Your task to perform on an android device: Do I have any events tomorrow? Image 0: 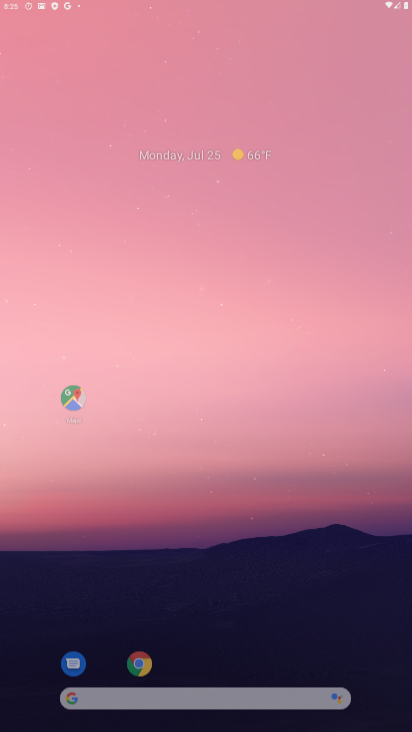
Step 0: drag from (381, 373) to (337, 35)
Your task to perform on an android device: Do I have any events tomorrow? Image 1: 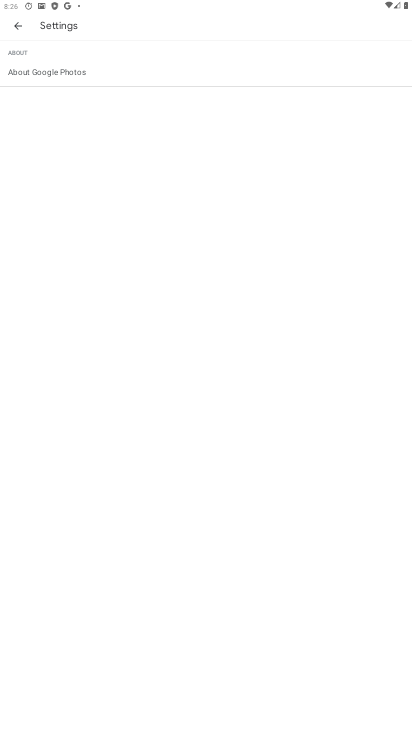
Step 1: drag from (146, 627) to (200, 345)
Your task to perform on an android device: Do I have any events tomorrow? Image 2: 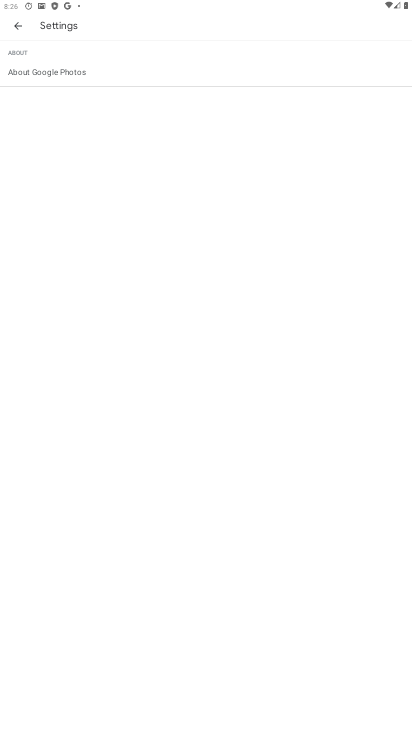
Step 2: drag from (287, 643) to (297, 423)
Your task to perform on an android device: Do I have any events tomorrow? Image 3: 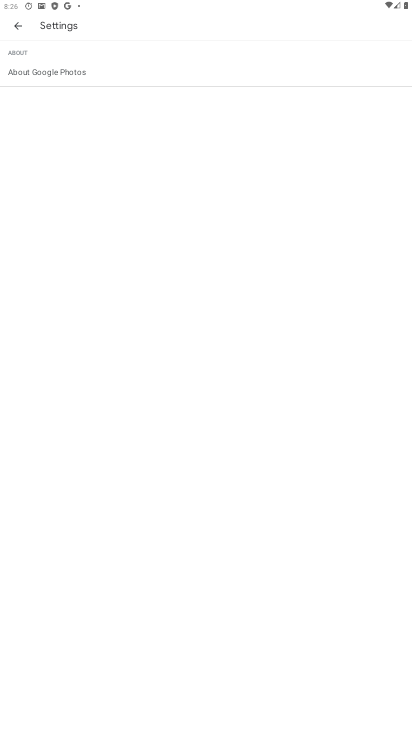
Step 3: drag from (240, 532) to (268, 381)
Your task to perform on an android device: Do I have any events tomorrow? Image 4: 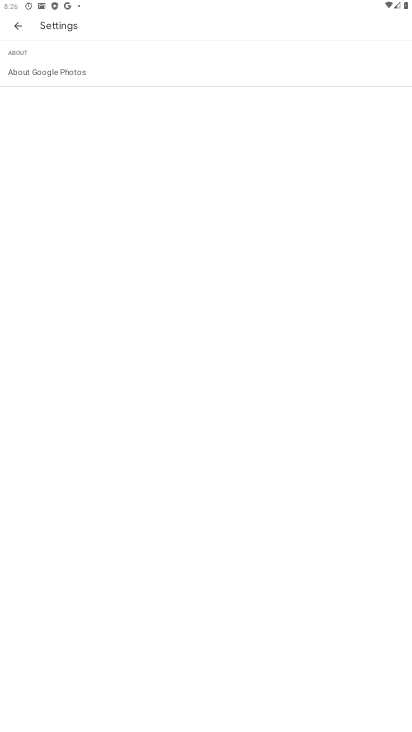
Step 4: drag from (155, 706) to (246, 391)
Your task to perform on an android device: Do I have any events tomorrow? Image 5: 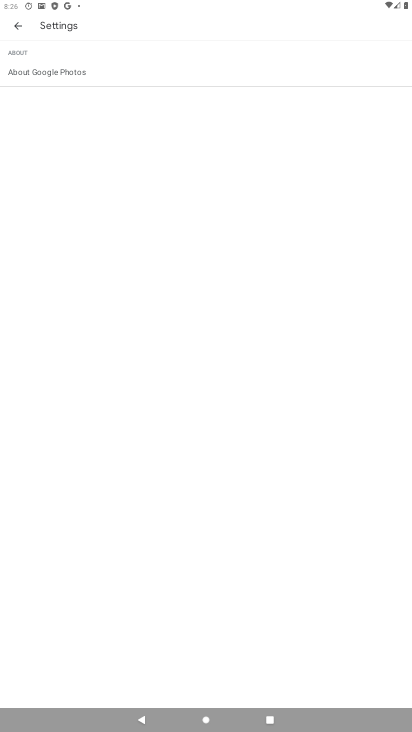
Step 5: drag from (286, 640) to (292, 340)
Your task to perform on an android device: Do I have any events tomorrow? Image 6: 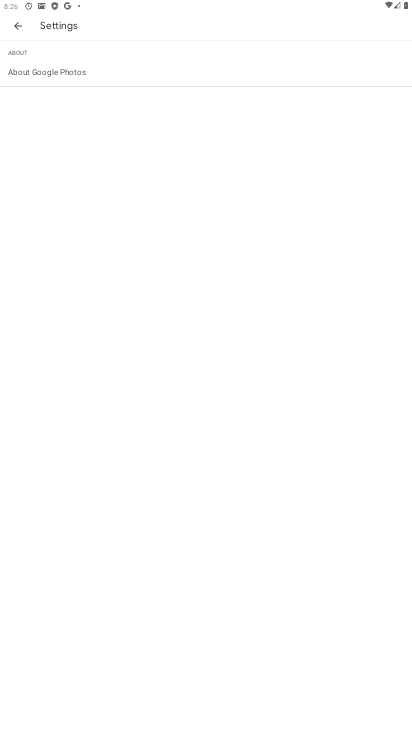
Step 6: drag from (212, 591) to (249, 438)
Your task to perform on an android device: Do I have any events tomorrow? Image 7: 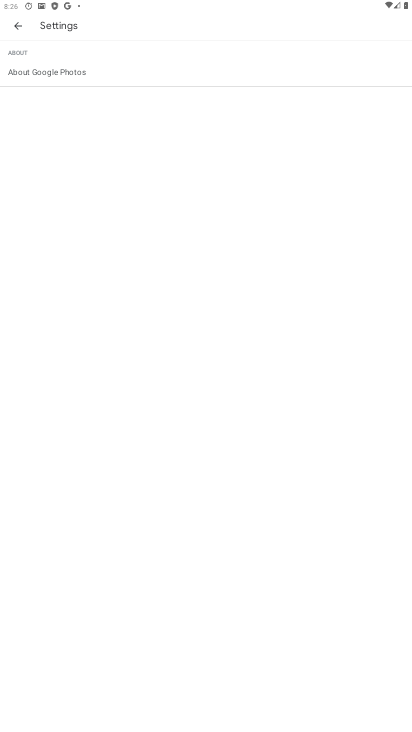
Step 7: drag from (275, 562) to (352, 723)
Your task to perform on an android device: Do I have any events tomorrow? Image 8: 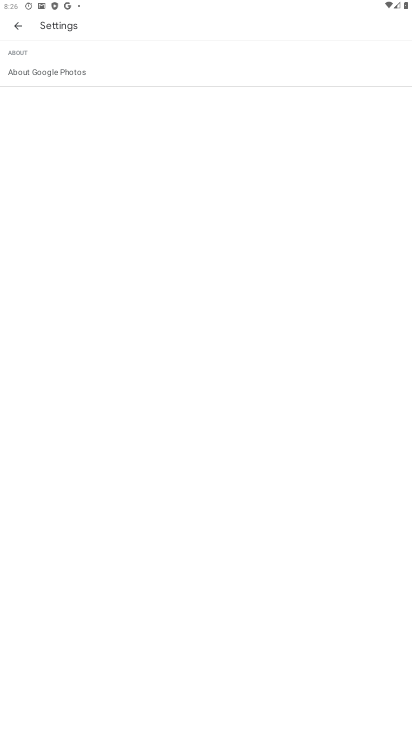
Step 8: drag from (258, 502) to (258, 418)
Your task to perform on an android device: Do I have any events tomorrow? Image 9: 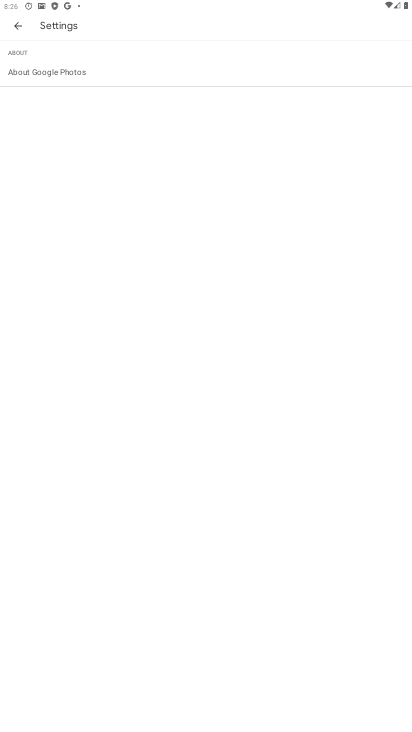
Step 9: click (188, 447)
Your task to perform on an android device: Do I have any events tomorrow? Image 10: 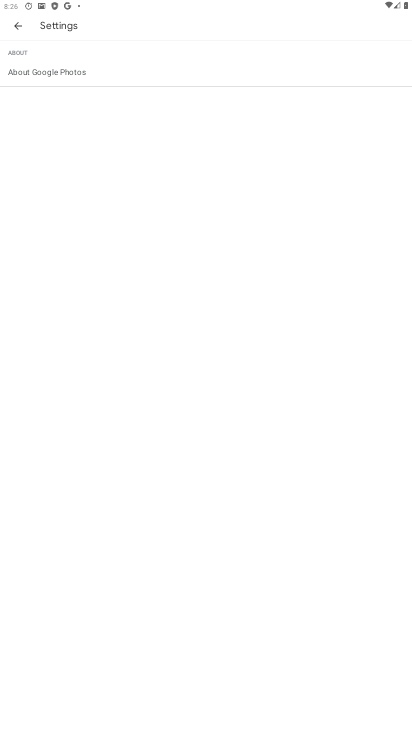
Step 10: click (12, 23)
Your task to perform on an android device: Do I have any events tomorrow? Image 11: 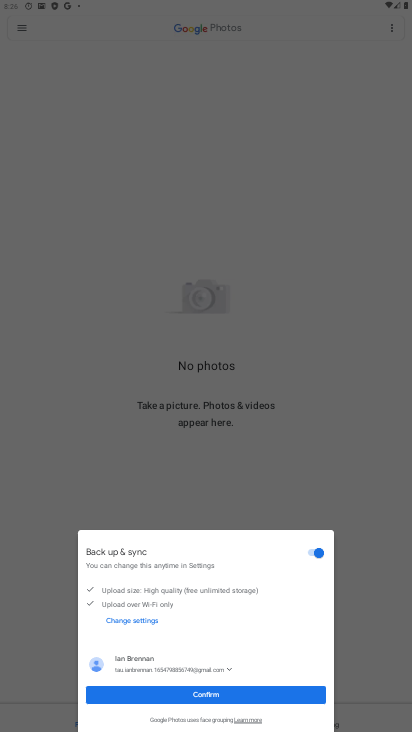
Step 11: click (182, 415)
Your task to perform on an android device: Do I have any events tomorrow? Image 12: 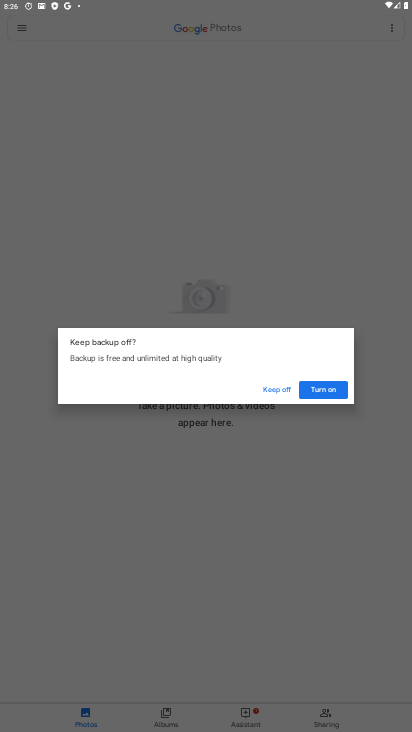
Step 12: press home button
Your task to perform on an android device: Do I have any events tomorrow? Image 13: 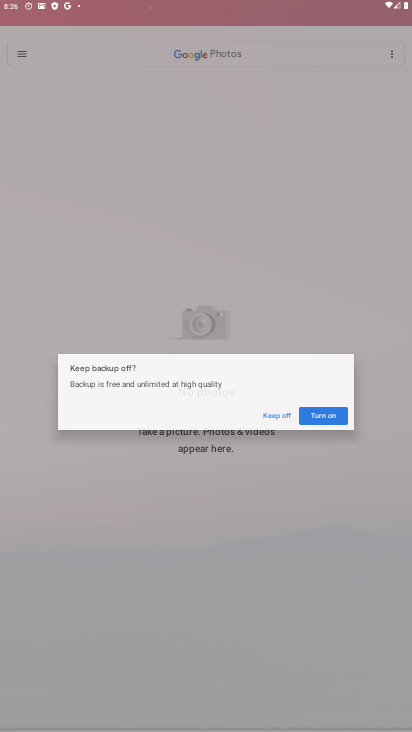
Step 13: drag from (269, 331) to (269, 267)
Your task to perform on an android device: Do I have any events tomorrow? Image 14: 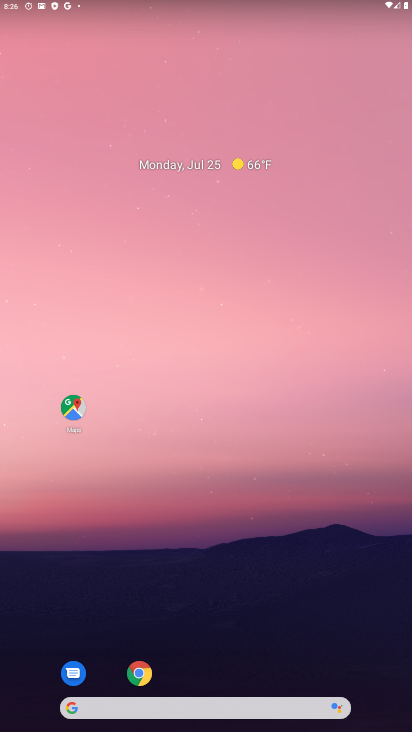
Step 14: drag from (177, 618) to (279, 3)
Your task to perform on an android device: Do I have any events tomorrow? Image 15: 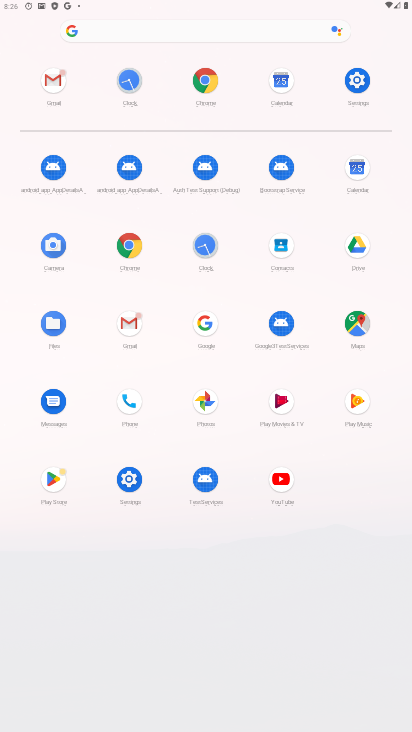
Step 15: click (340, 172)
Your task to perform on an android device: Do I have any events tomorrow? Image 16: 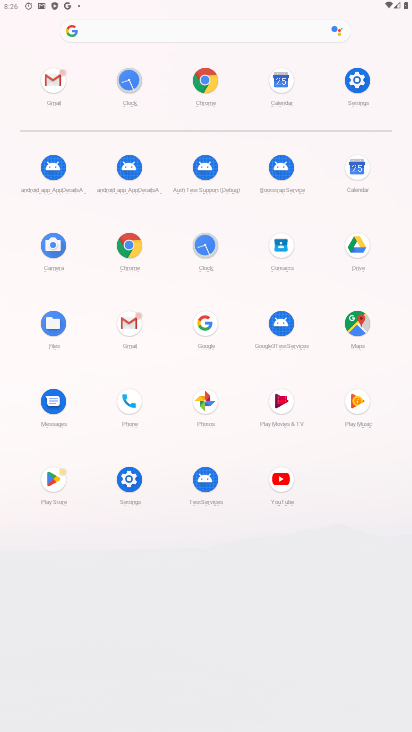
Step 16: click (354, 168)
Your task to perform on an android device: Do I have any events tomorrow? Image 17: 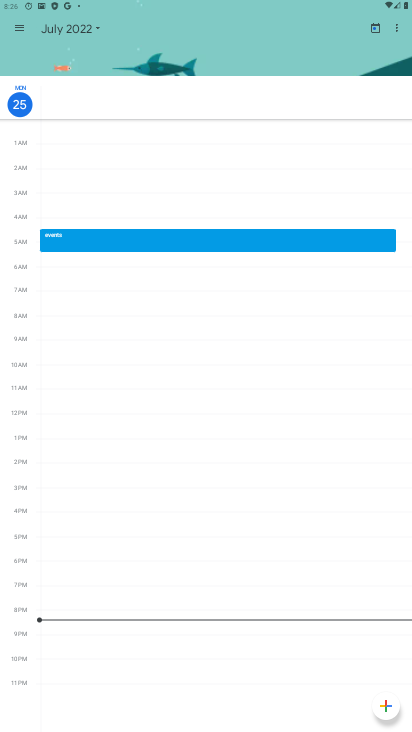
Step 17: drag from (214, 516) to (309, 76)
Your task to perform on an android device: Do I have any events tomorrow? Image 18: 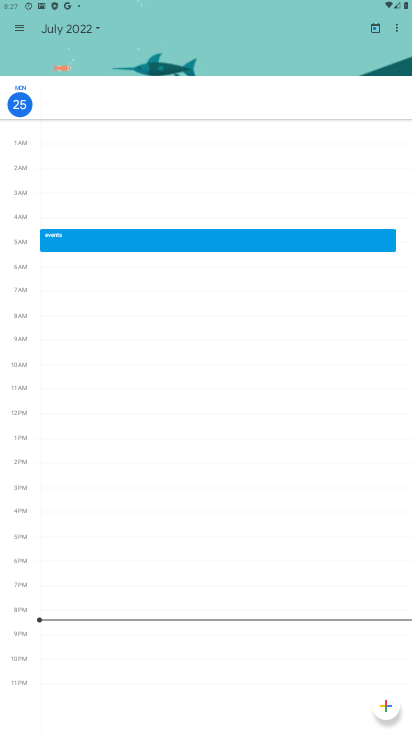
Step 18: click (47, 36)
Your task to perform on an android device: Do I have any events tomorrow? Image 19: 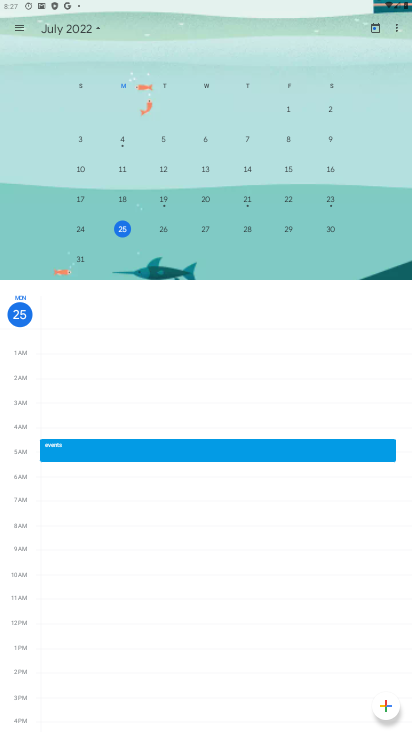
Step 19: click (168, 223)
Your task to perform on an android device: Do I have any events tomorrow? Image 20: 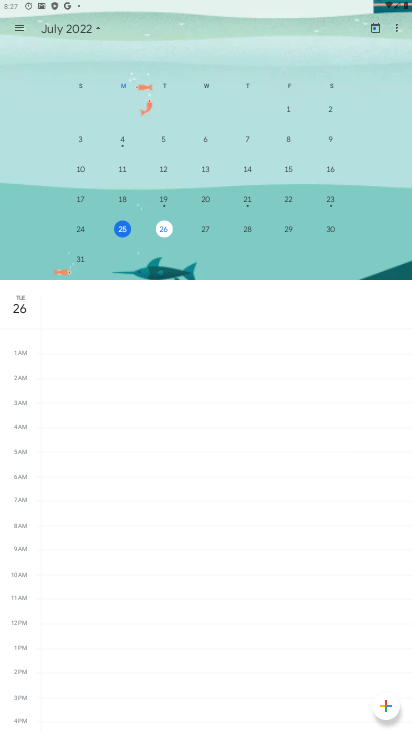
Step 20: click (160, 228)
Your task to perform on an android device: Do I have any events tomorrow? Image 21: 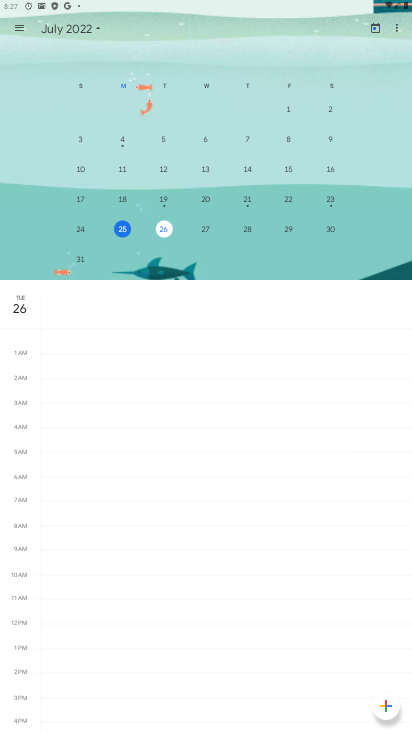
Step 21: task complete